Your task to perform on an android device: Open Google Maps Image 0: 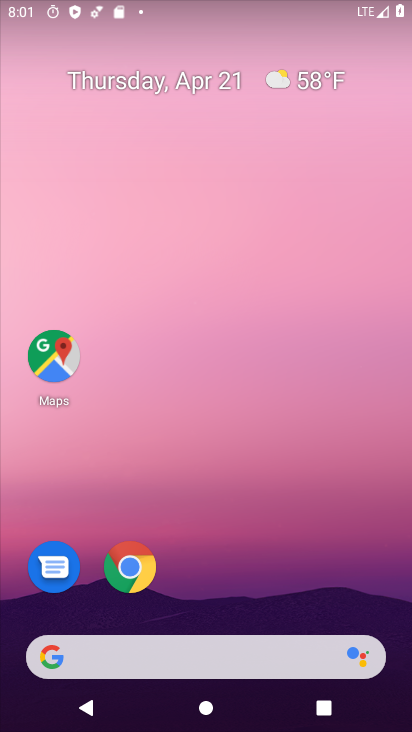
Step 0: click (56, 357)
Your task to perform on an android device: Open Google Maps Image 1: 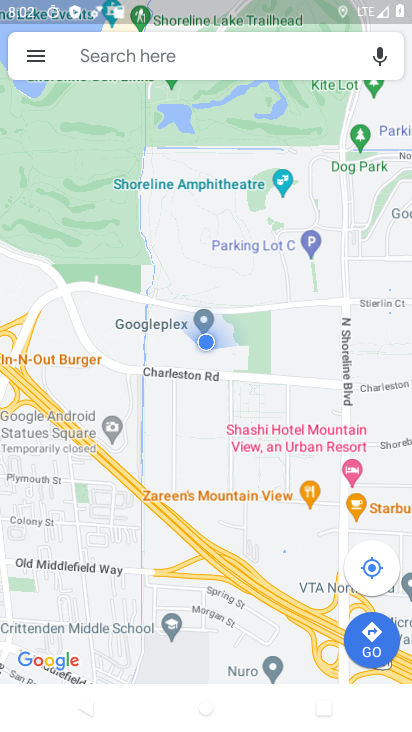
Step 1: task complete